Your task to perform on an android device: Do I have any events this weekend? Image 0: 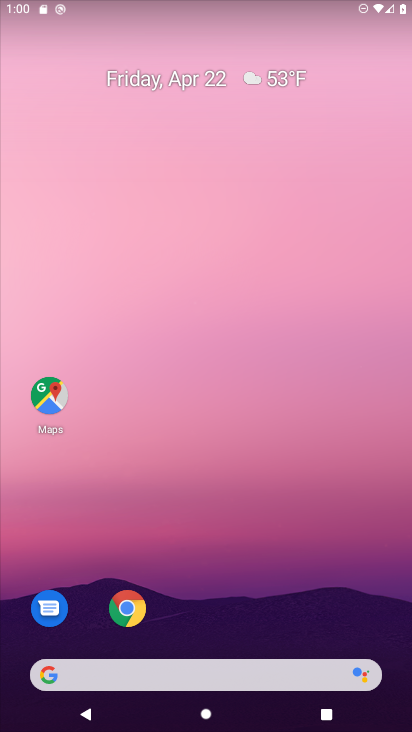
Step 0: drag from (387, 659) to (319, 194)
Your task to perform on an android device: Do I have any events this weekend? Image 1: 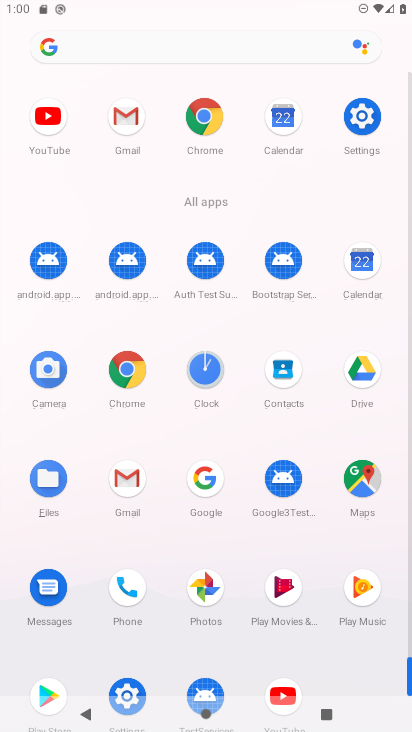
Step 1: click (409, 650)
Your task to perform on an android device: Do I have any events this weekend? Image 2: 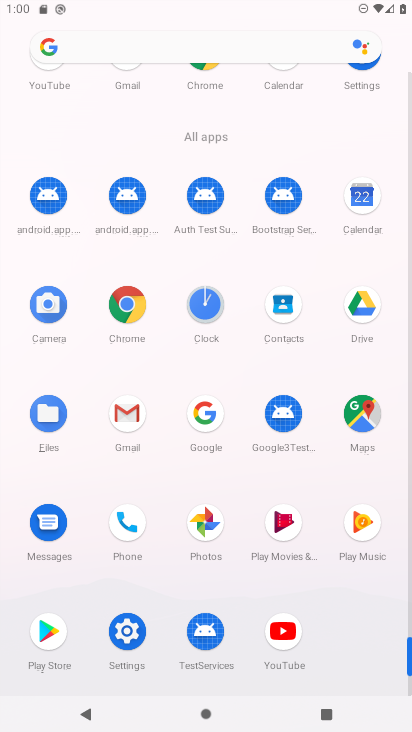
Step 2: click (360, 197)
Your task to perform on an android device: Do I have any events this weekend? Image 3: 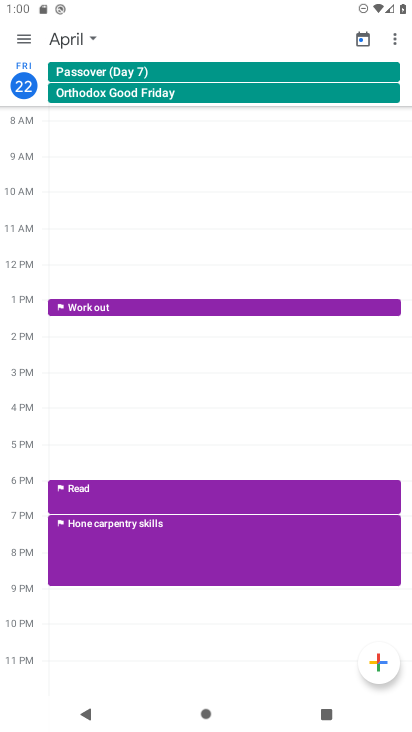
Step 3: click (22, 37)
Your task to perform on an android device: Do I have any events this weekend? Image 4: 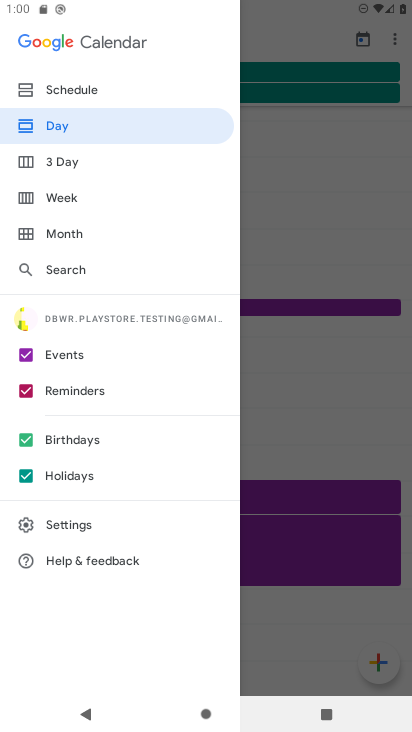
Step 4: click (61, 200)
Your task to perform on an android device: Do I have any events this weekend? Image 5: 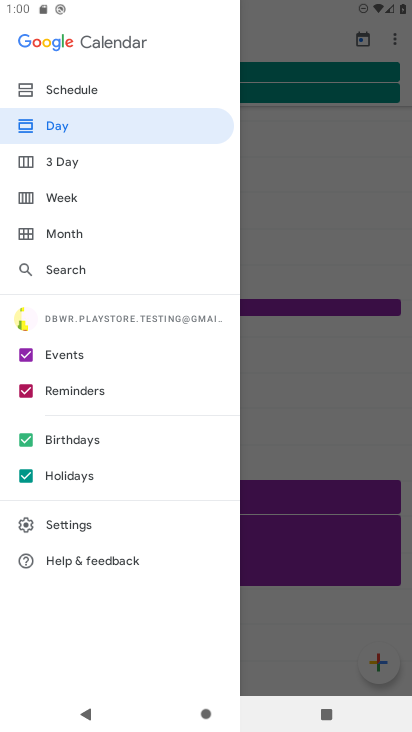
Step 5: click (49, 195)
Your task to perform on an android device: Do I have any events this weekend? Image 6: 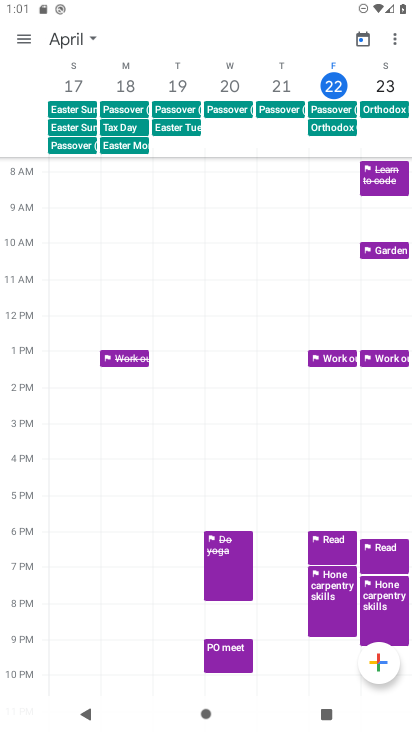
Step 6: task complete